Your task to perform on an android device: Open Wikipedia Image 0: 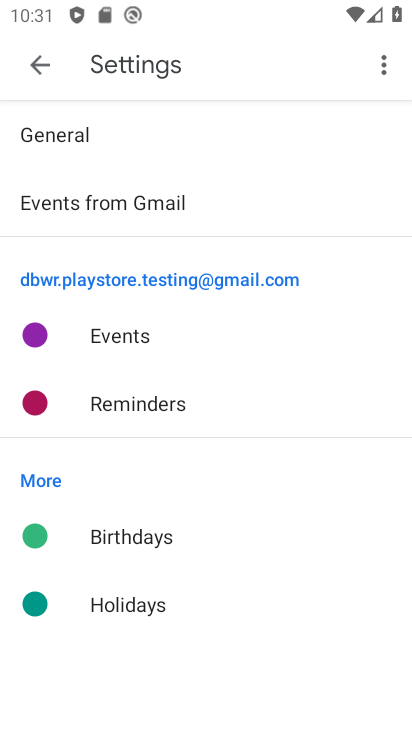
Step 0: press home button
Your task to perform on an android device: Open Wikipedia Image 1: 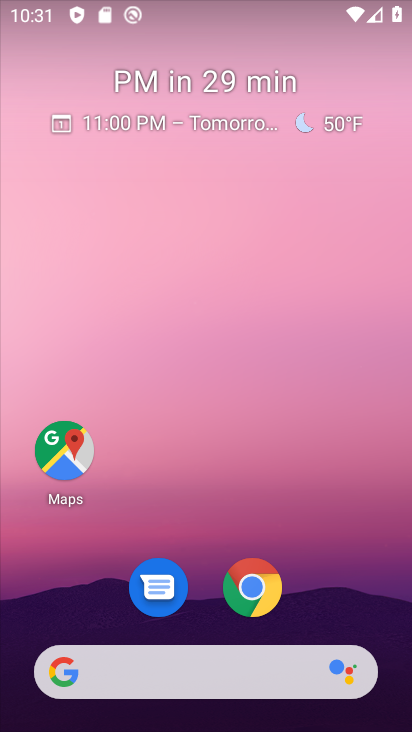
Step 1: drag from (212, 635) to (236, 61)
Your task to perform on an android device: Open Wikipedia Image 2: 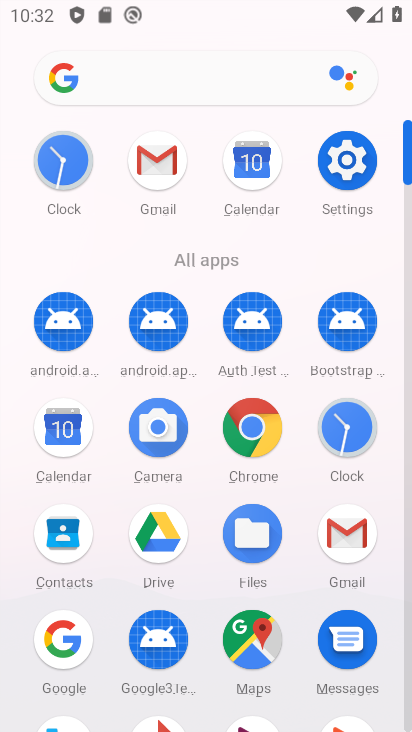
Step 2: click (268, 421)
Your task to perform on an android device: Open Wikipedia Image 3: 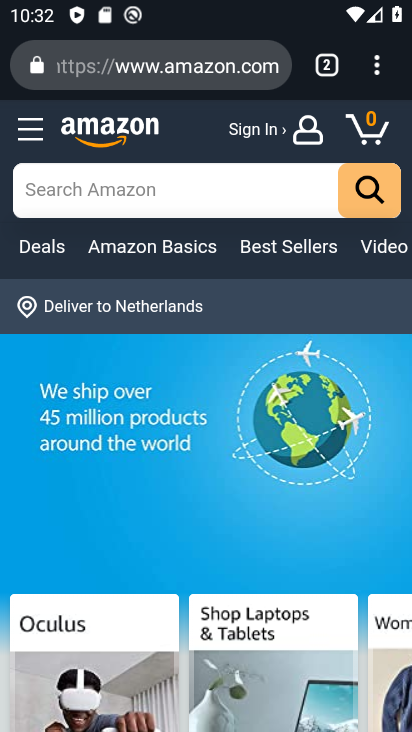
Step 3: click (322, 72)
Your task to perform on an android device: Open Wikipedia Image 4: 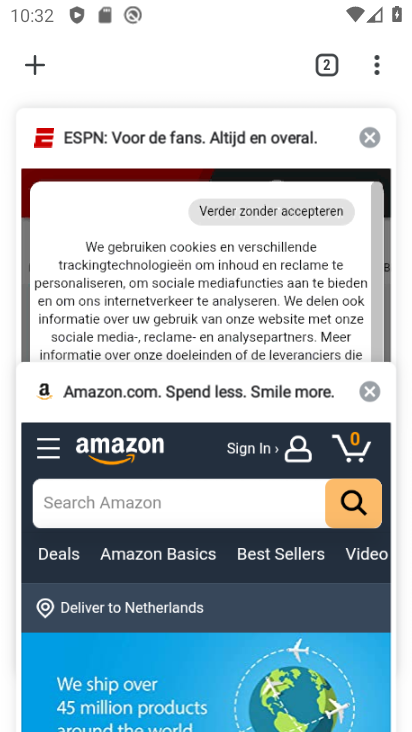
Step 4: click (44, 63)
Your task to perform on an android device: Open Wikipedia Image 5: 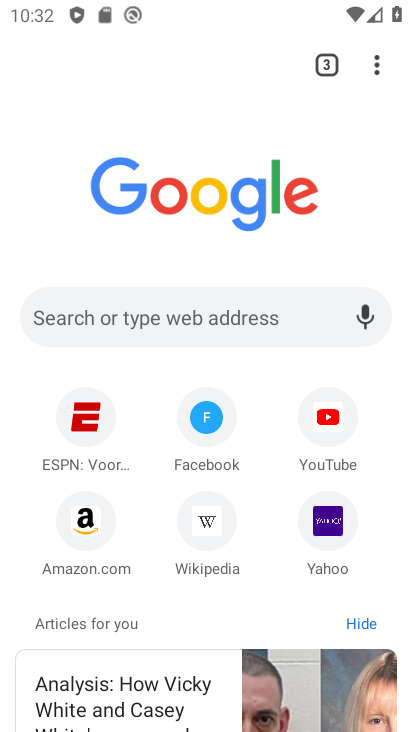
Step 5: click (192, 516)
Your task to perform on an android device: Open Wikipedia Image 6: 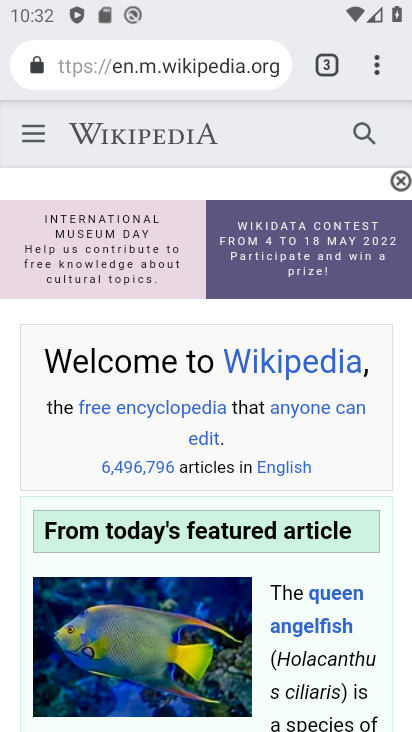
Step 6: task complete